Your task to perform on an android device: open the mobile data screen to see how much data has been used Image 0: 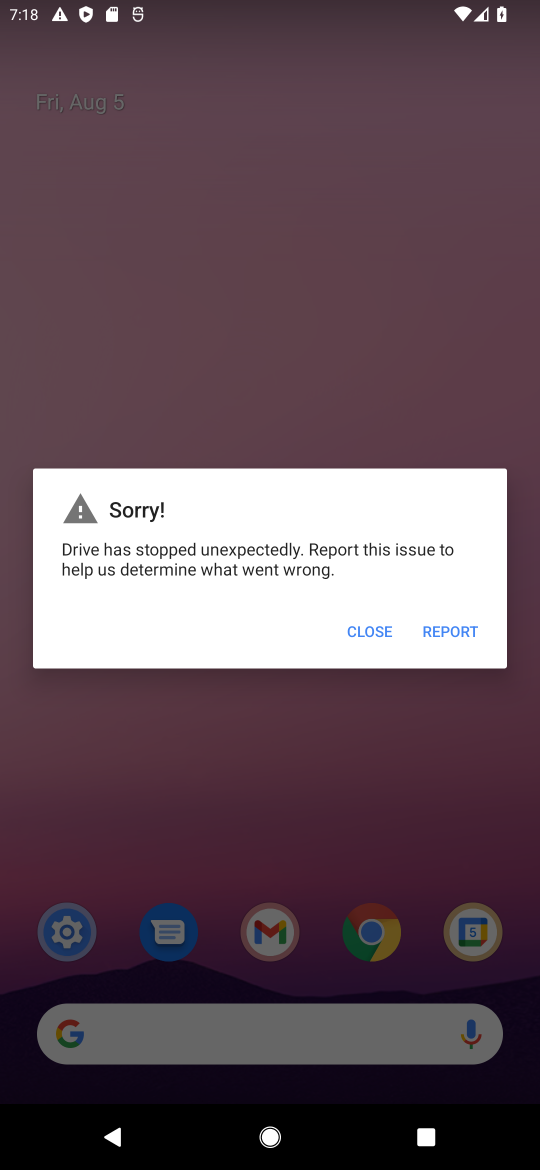
Step 0: press home button
Your task to perform on an android device: open the mobile data screen to see how much data has been used Image 1: 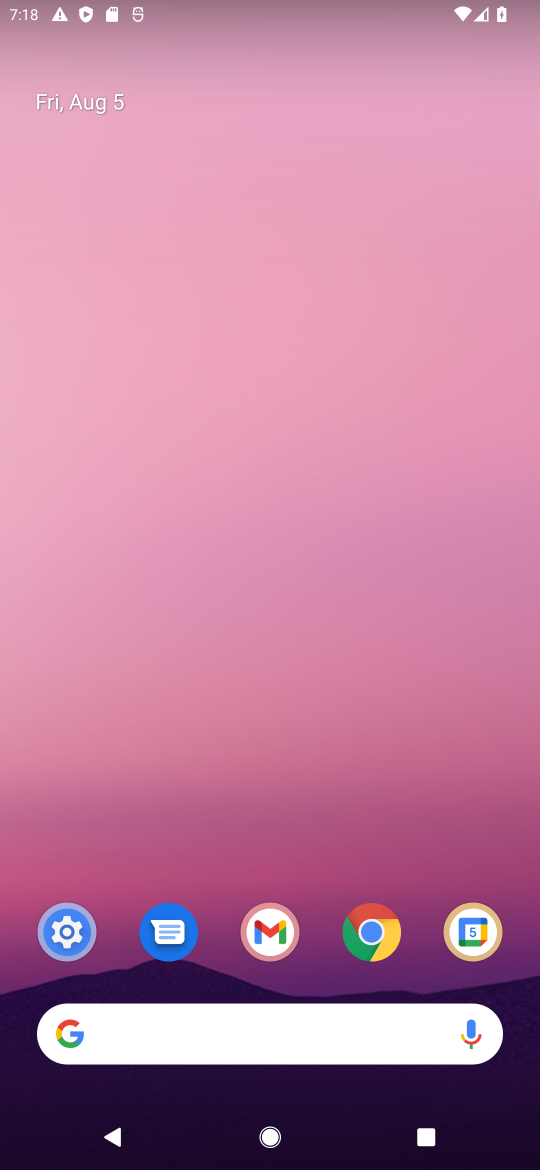
Step 1: drag from (186, 1038) to (224, 239)
Your task to perform on an android device: open the mobile data screen to see how much data has been used Image 2: 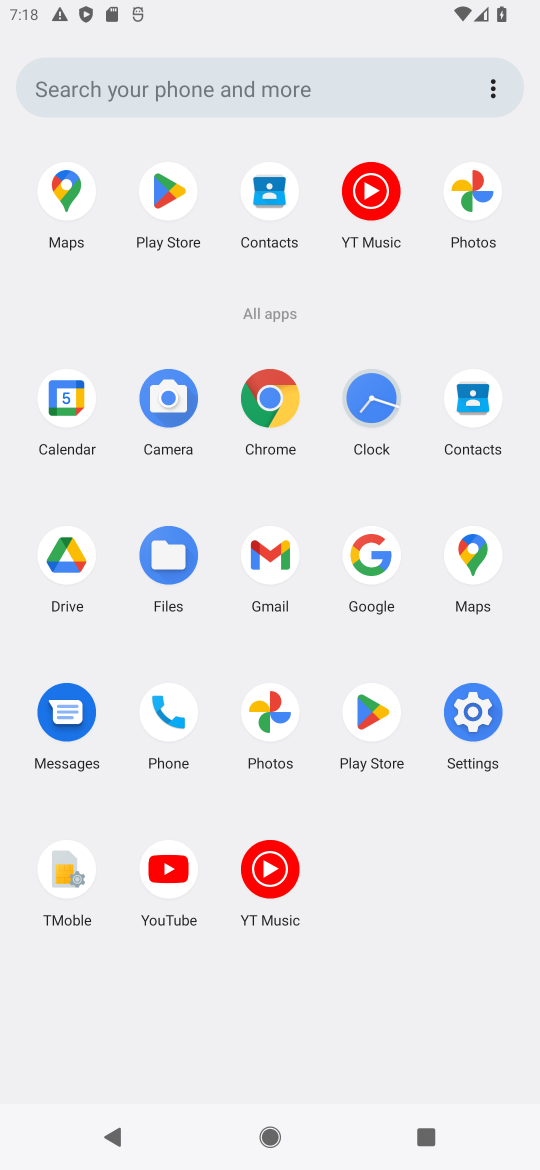
Step 2: click (470, 713)
Your task to perform on an android device: open the mobile data screen to see how much data has been used Image 3: 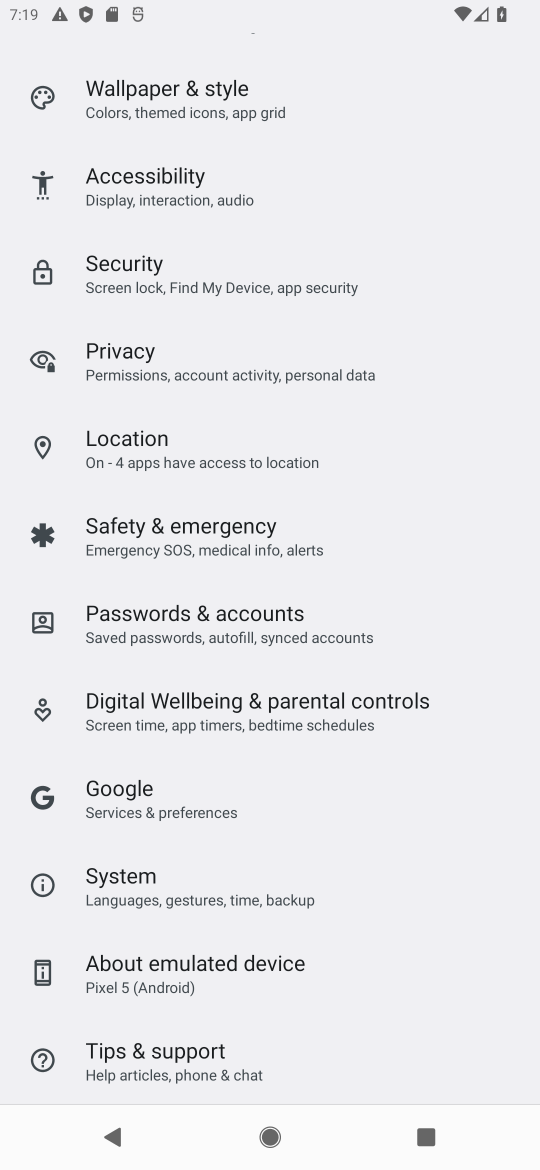
Step 3: drag from (218, 314) to (279, 756)
Your task to perform on an android device: open the mobile data screen to see how much data has been used Image 4: 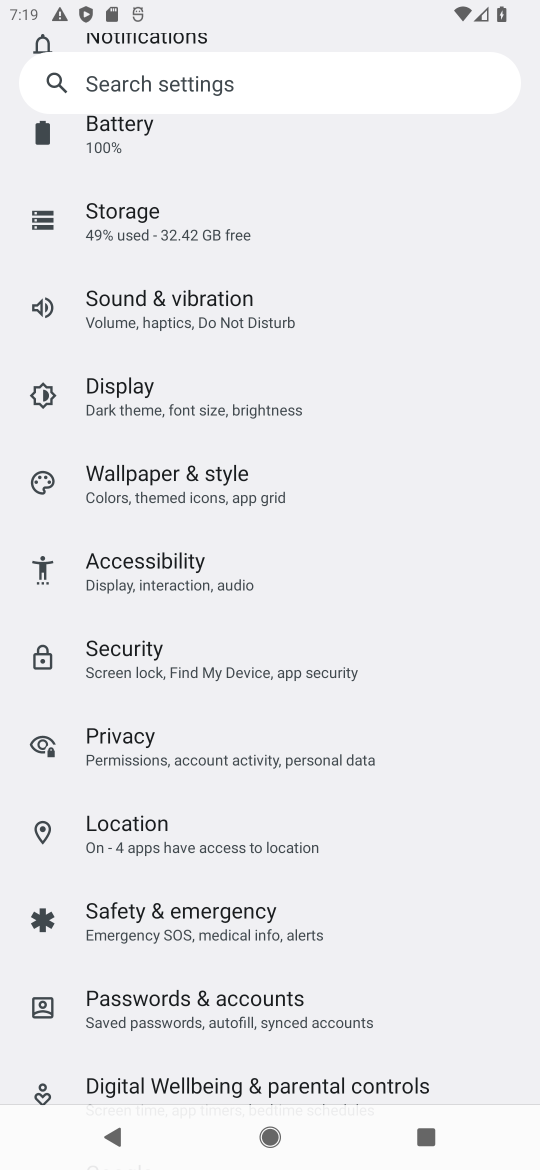
Step 4: drag from (200, 208) to (249, 643)
Your task to perform on an android device: open the mobile data screen to see how much data has been used Image 5: 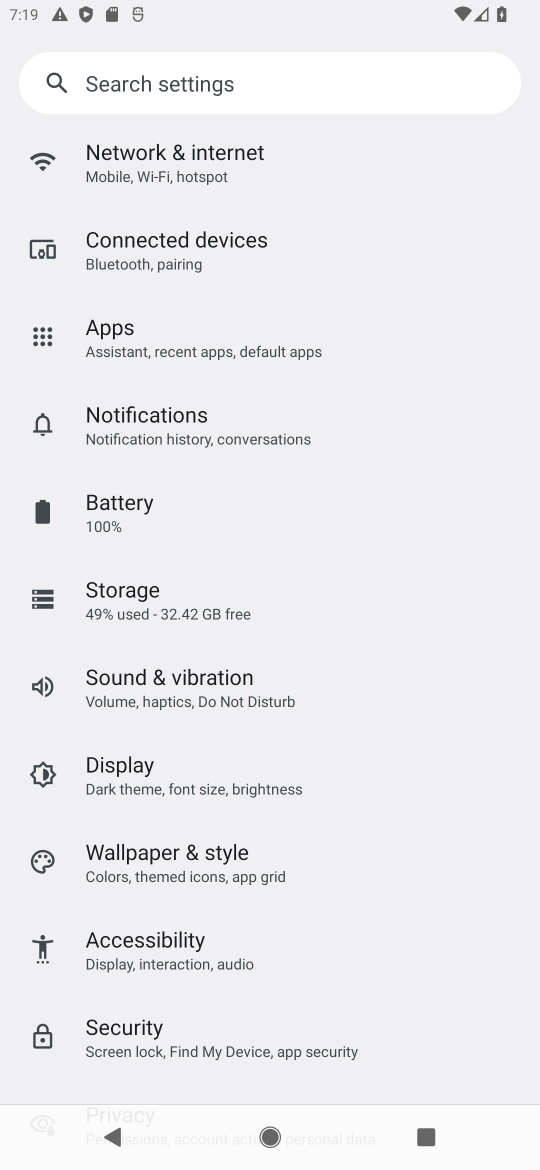
Step 5: drag from (240, 195) to (297, 558)
Your task to perform on an android device: open the mobile data screen to see how much data has been used Image 6: 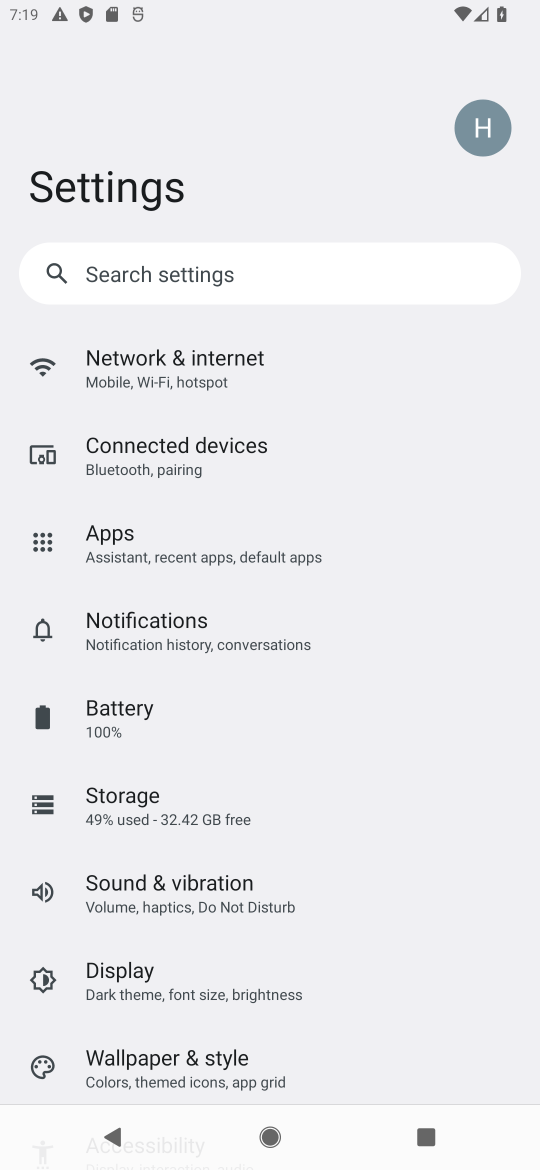
Step 6: click (182, 369)
Your task to perform on an android device: open the mobile data screen to see how much data has been used Image 7: 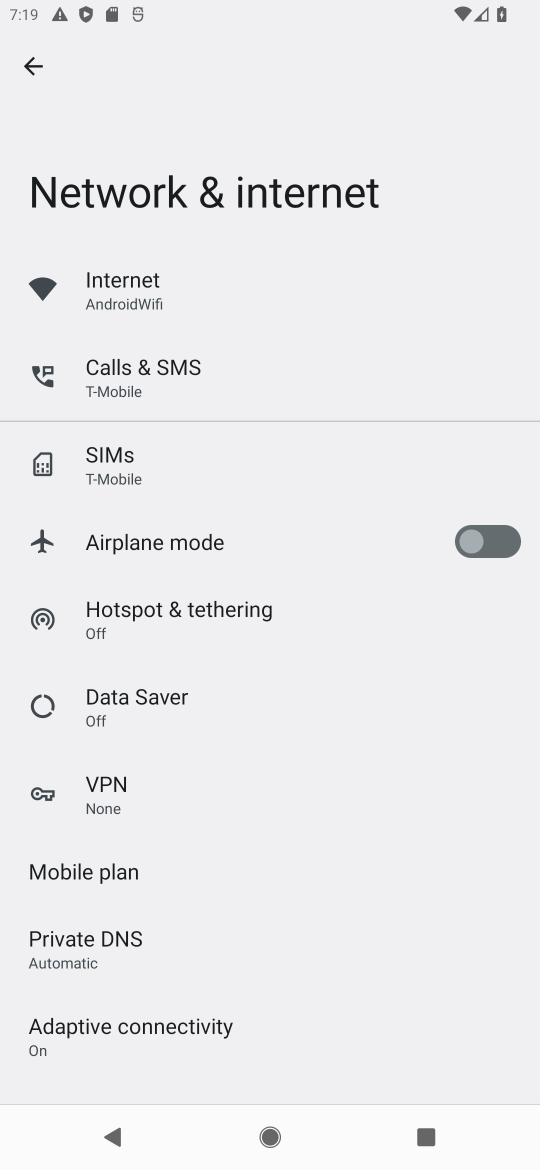
Step 7: click (144, 297)
Your task to perform on an android device: open the mobile data screen to see how much data has been used Image 8: 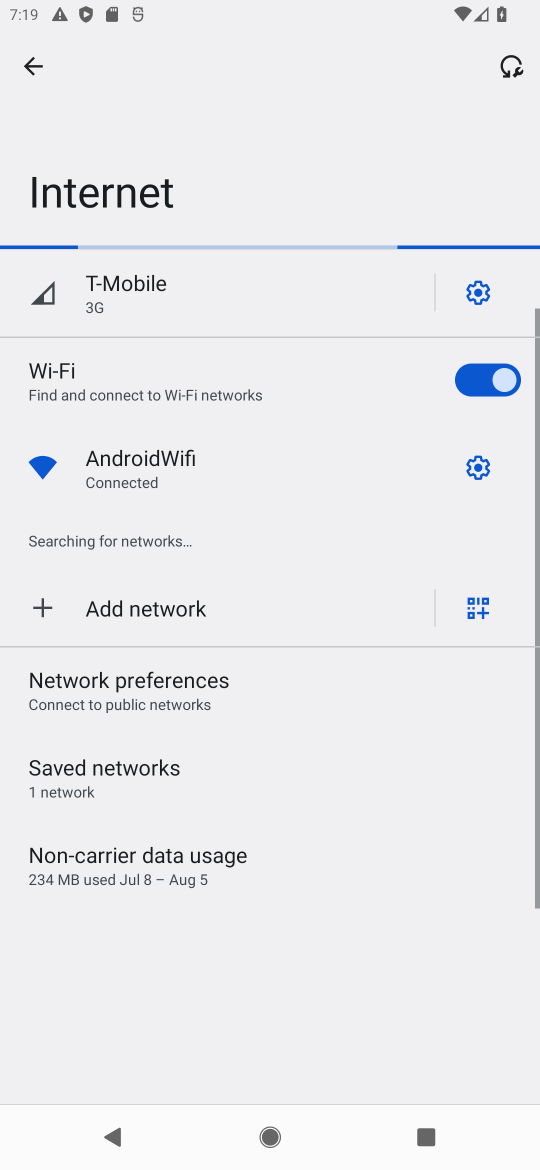
Step 8: click (216, 313)
Your task to perform on an android device: open the mobile data screen to see how much data has been used Image 9: 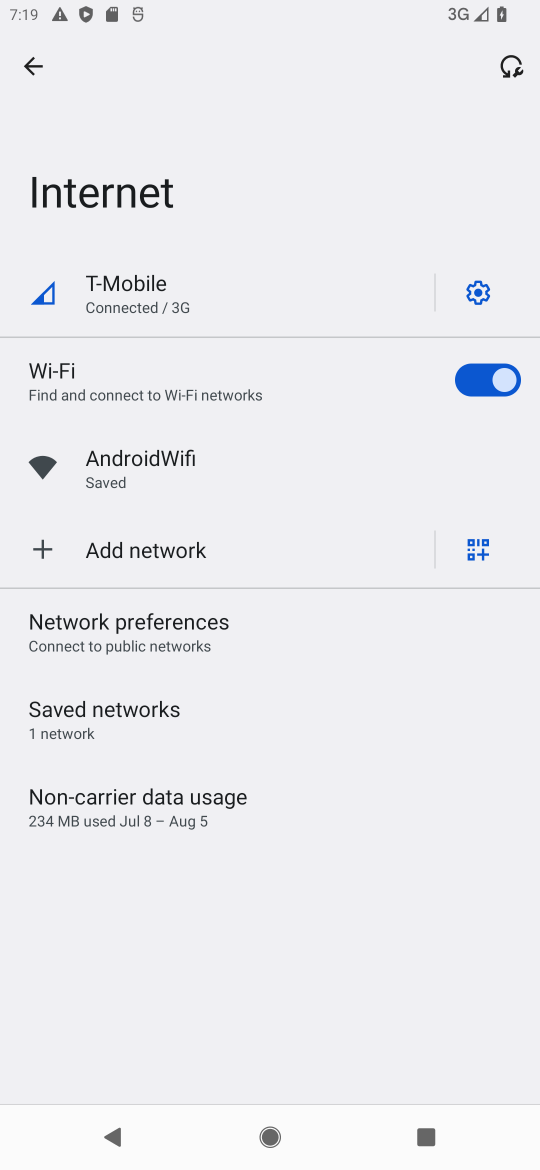
Step 9: click (482, 293)
Your task to perform on an android device: open the mobile data screen to see how much data has been used Image 10: 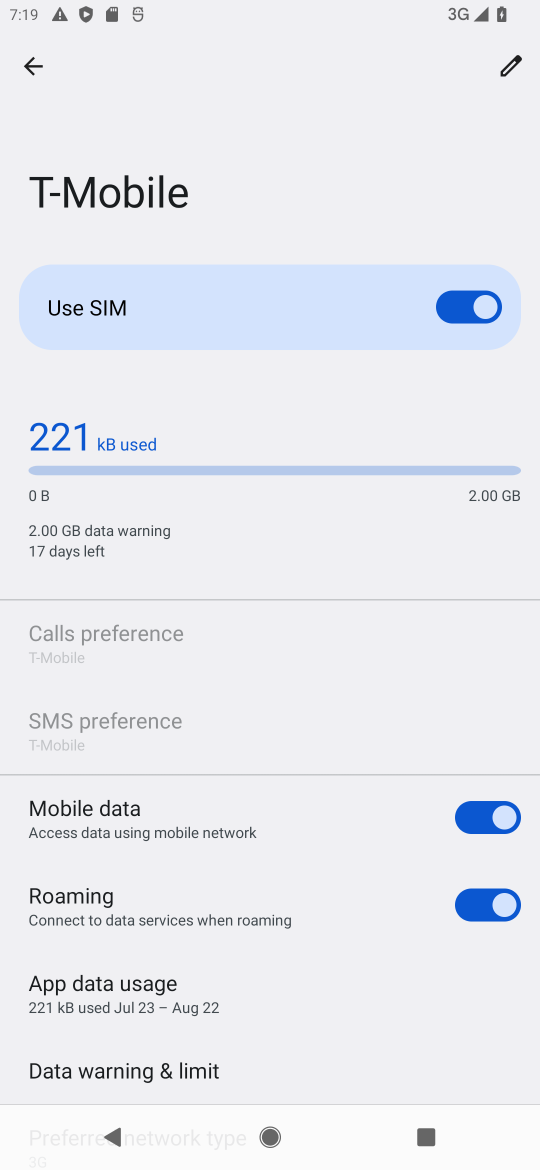
Step 10: task complete